Your task to perform on an android device: Open Google Maps and go to "Timeline" Image 0: 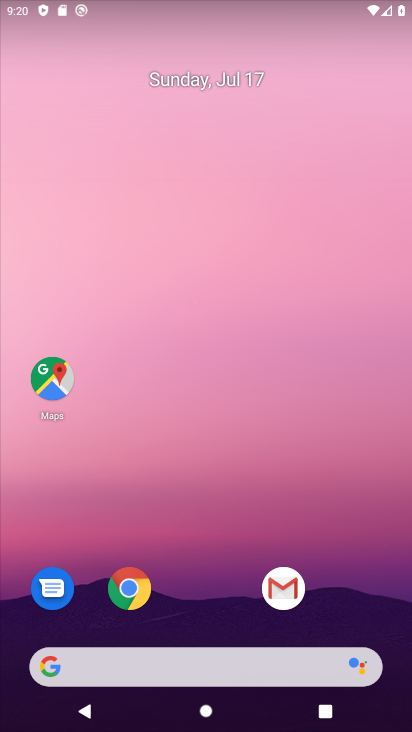
Step 0: drag from (288, 651) to (328, 214)
Your task to perform on an android device: Open Google Maps and go to "Timeline" Image 1: 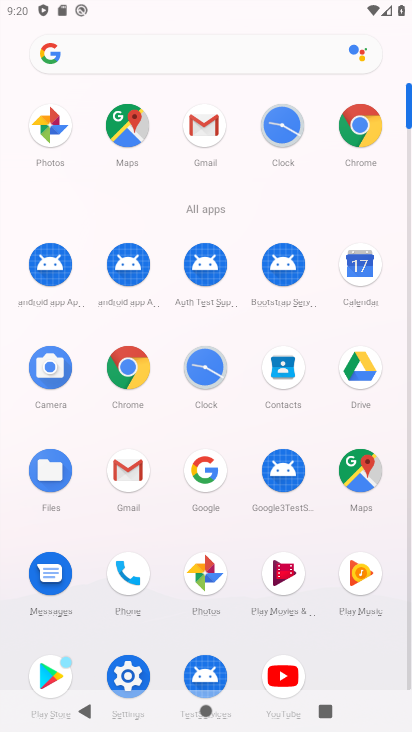
Step 1: click (344, 473)
Your task to perform on an android device: Open Google Maps and go to "Timeline" Image 2: 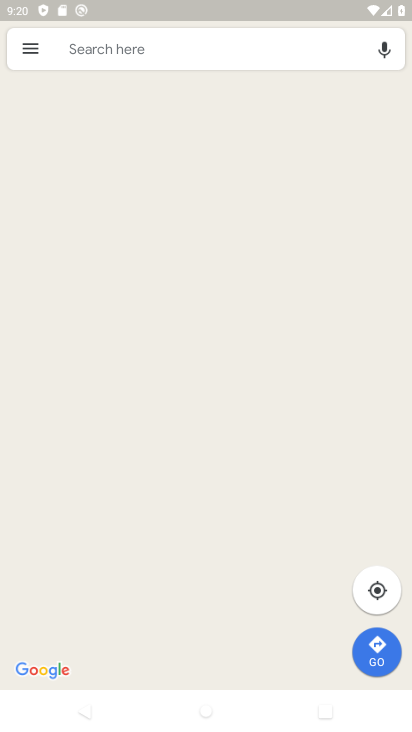
Step 2: click (20, 51)
Your task to perform on an android device: Open Google Maps and go to "Timeline" Image 3: 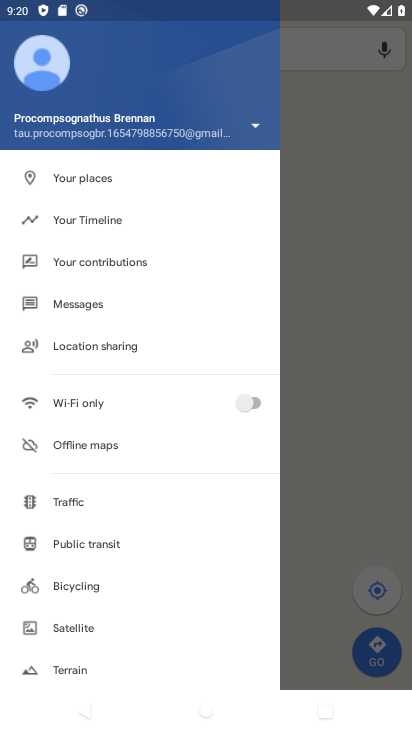
Step 3: click (122, 223)
Your task to perform on an android device: Open Google Maps and go to "Timeline" Image 4: 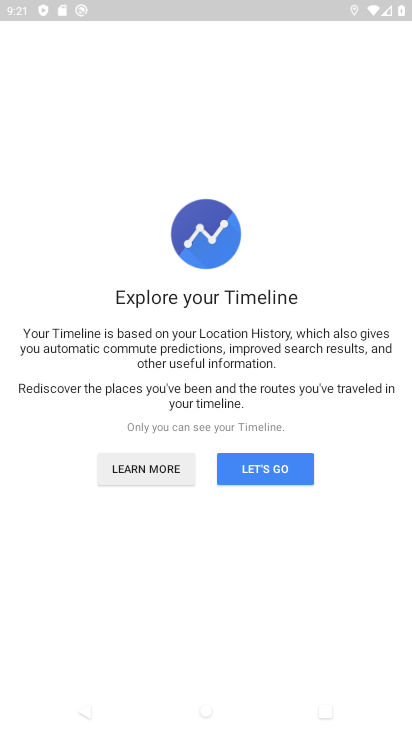
Step 4: click (262, 462)
Your task to perform on an android device: Open Google Maps and go to "Timeline" Image 5: 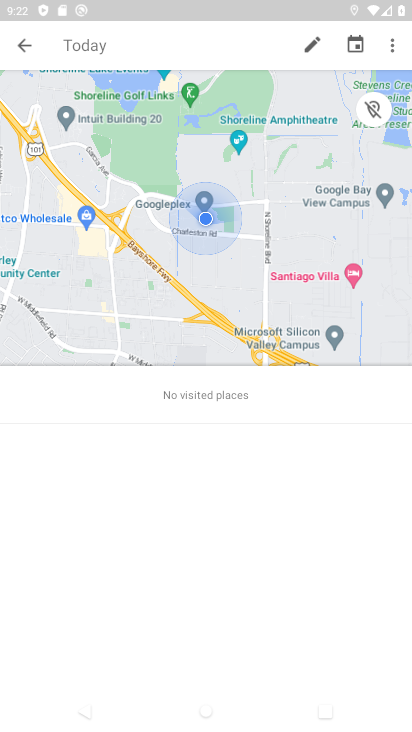
Step 5: task complete